Your task to perform on an android device: turn off priority inbox in the gmail app Image 0: 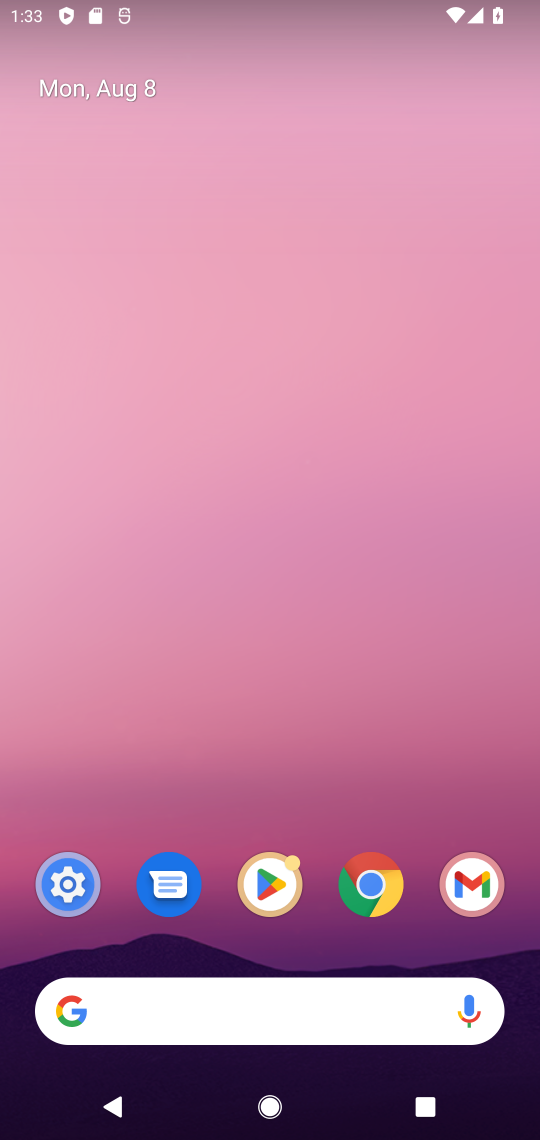
Step 0: click (473, 884)
Your task to perform on an android device: turn off priority inbox in the gmail app Image 1: 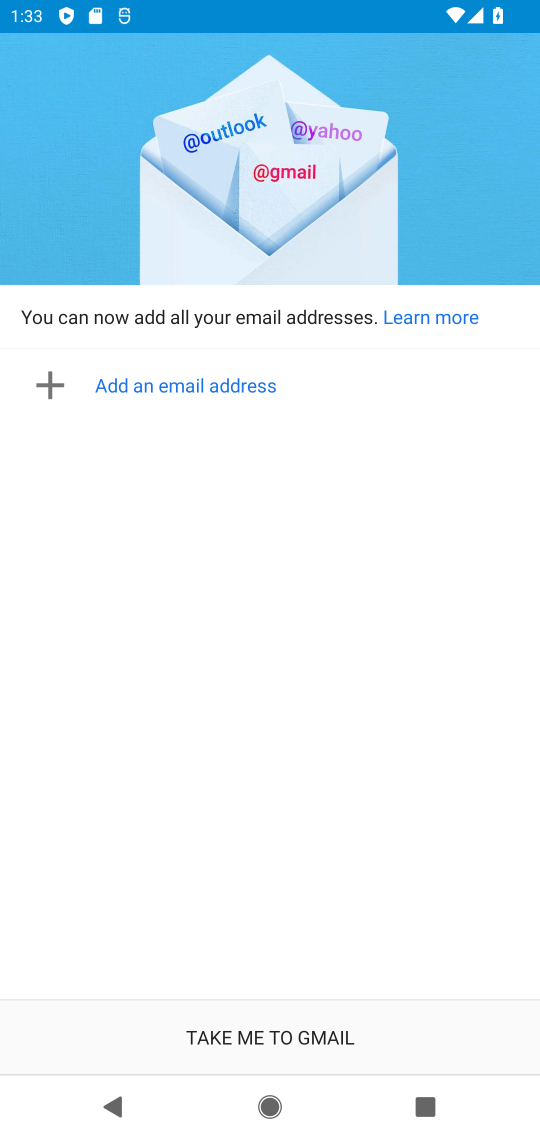
Step 1: click (278, 1018)
Your task to perform on an android device: turn off priority inbox in the gmail app Image 2: 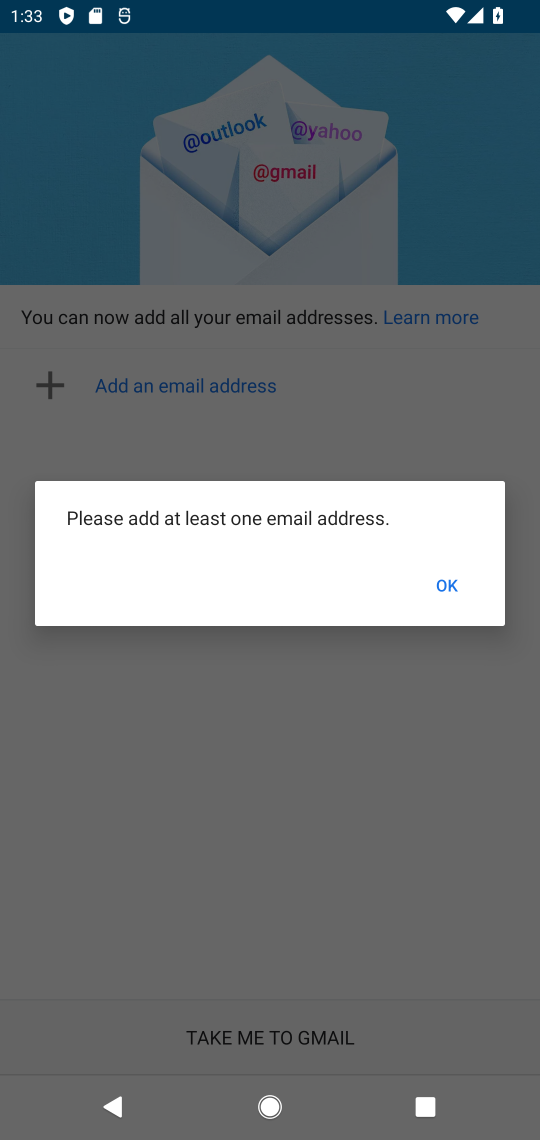
Step 2: task complete